Your task to perform on an android device: turn off sleep mode Image 0: 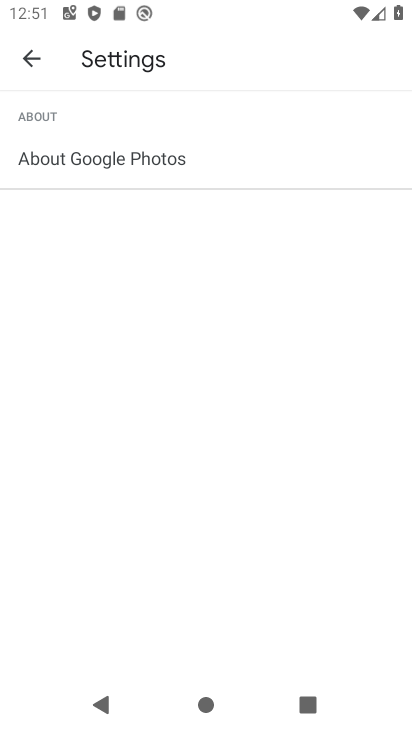
Step 0: press home button
Your task to perform on an android device: turn off sleep mode Image 1: 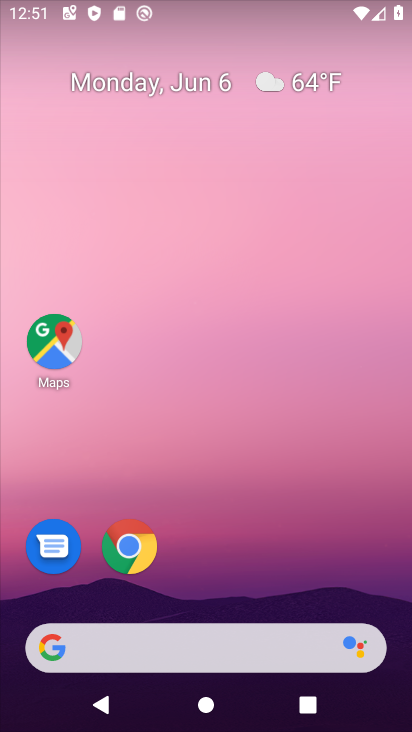
Step 1: click (206, 521)
Your task to perform on an android device: turn off sleep mode Image 2: 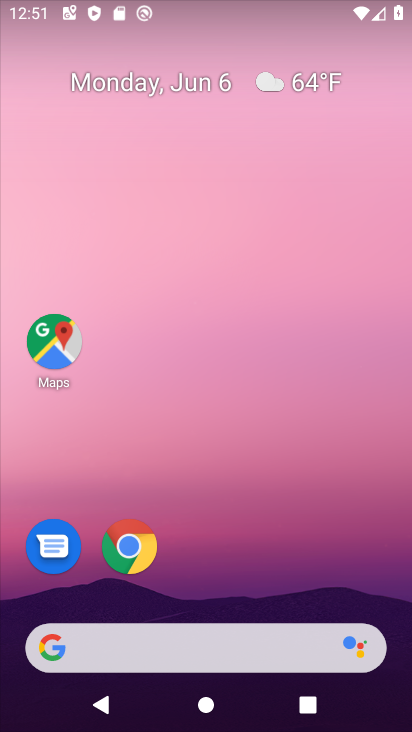
Step 2: drag from (232, 599) to (254, 228)
Your task to perform on an android device: turn off sleep mode Image 3: 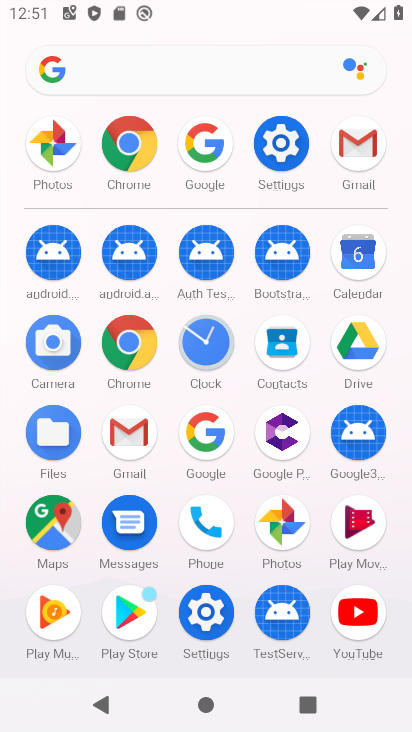
Step 3: click (286, 138)
Your task to perform on an android device: turn off sleep mode Image 4: 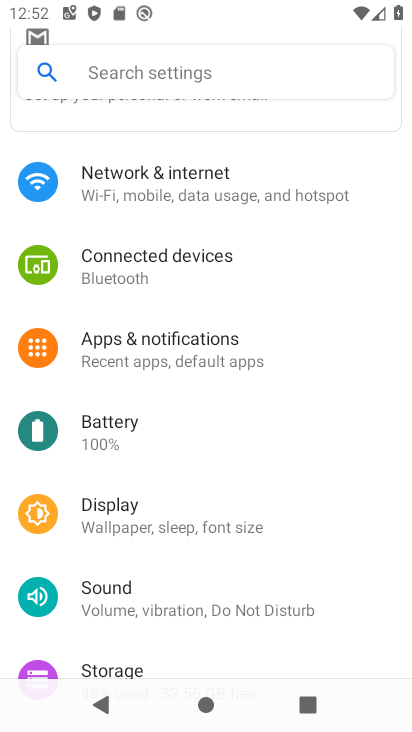
Step 4: task complete